Your task to perform on an android device: Do I have any events today? Image 0: 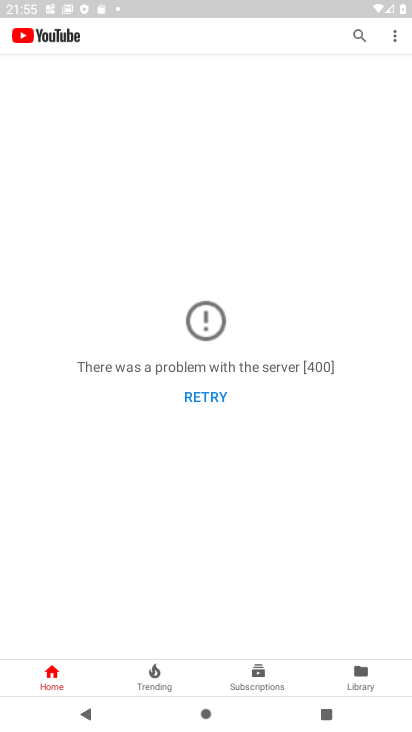
Step 0: press home button
Your task to perform on an android device: Do I have any events today? Image 1: 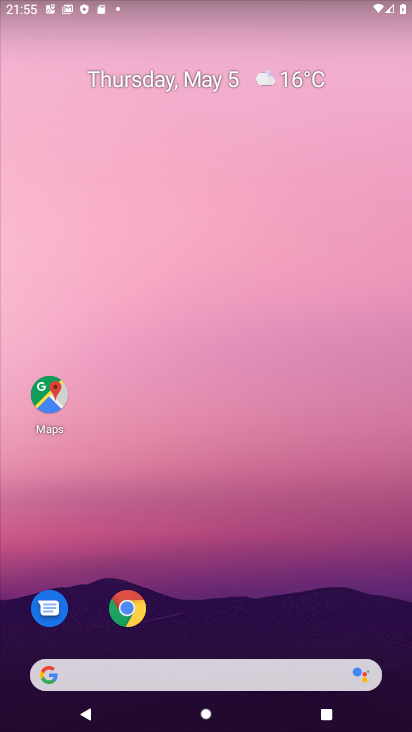
Step 1: drag from (269, 626) to (362, 139)
Your task to perform on an android device: Do I have any events today? Image 2: 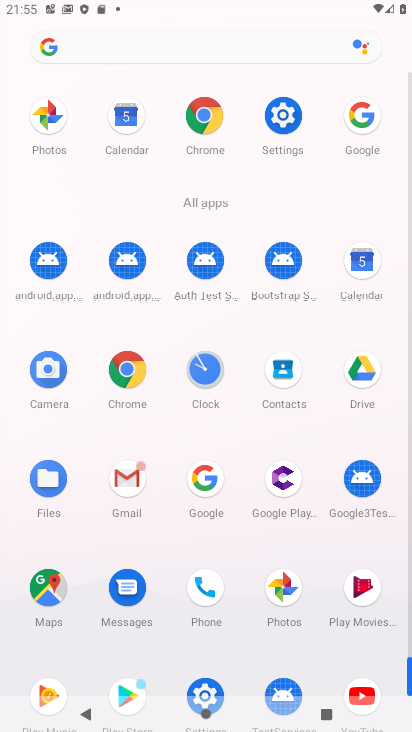
Step 2: click (364, 262)
Your task to perform on an android device: Do I have any events today? Image 3: 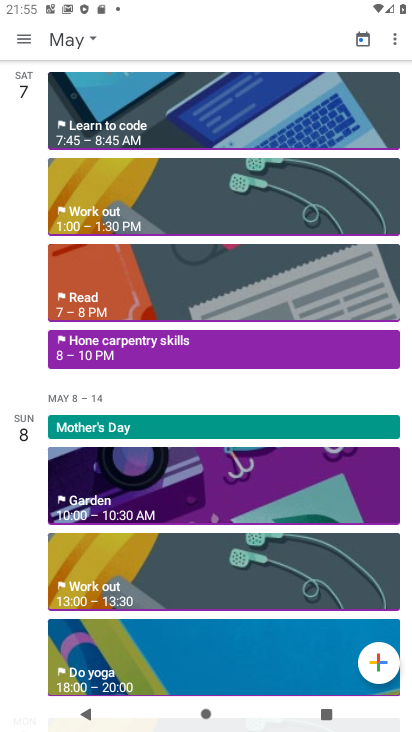
Step 3: click (26, 38)
Your task to perform on an android device: Do I have any events today? Image 4: 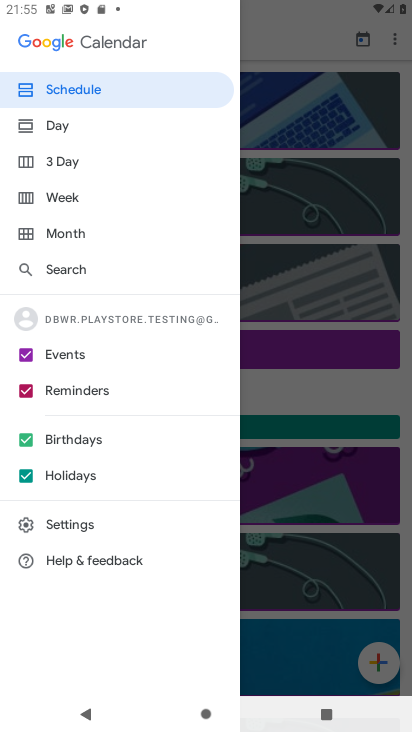
Step 4: click (60, 91)
Your task to perform on an android device: Do I have any events today? Image 5: 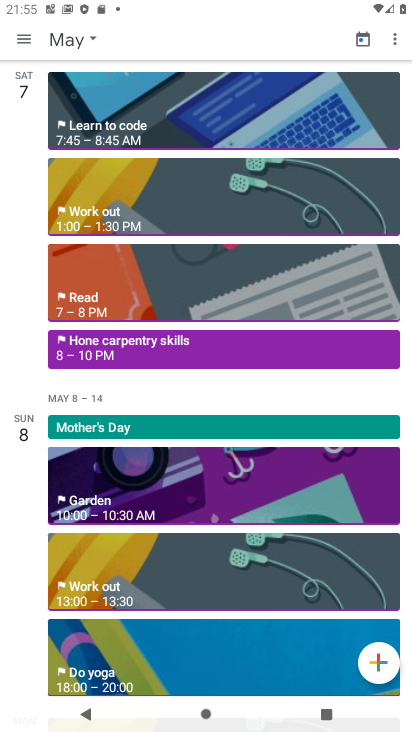
Step 5: click (78, 38)
Your task to perform on an android device: Do I have any events today? Image 6: 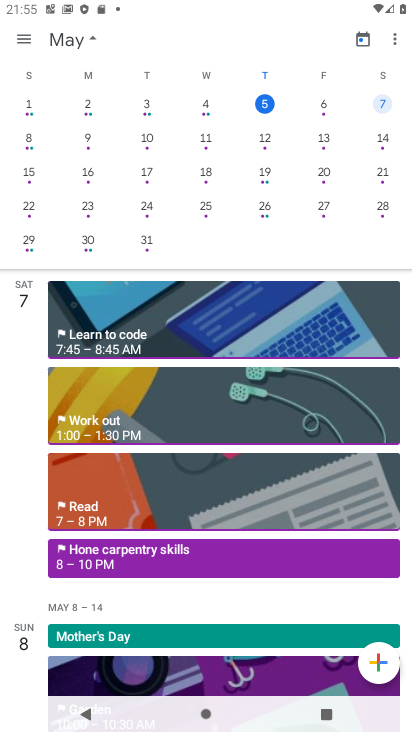
Step 6: click (322, 102)
Your task to perform on an android device: Do I have any events today? Image 7: 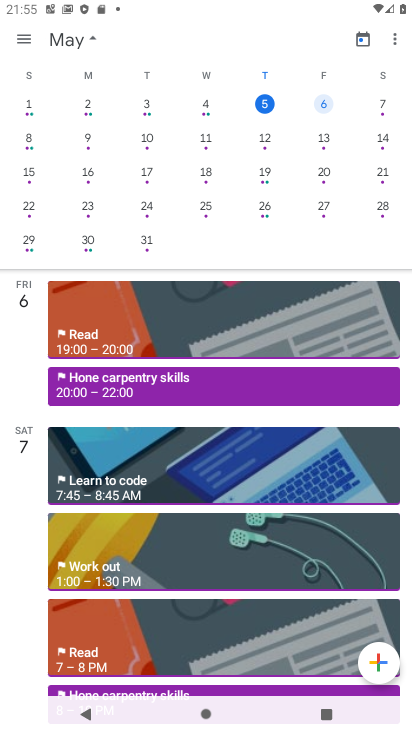
Step 7: task complete